Your task to perform on an android device: Open accessibility settings Image 0: 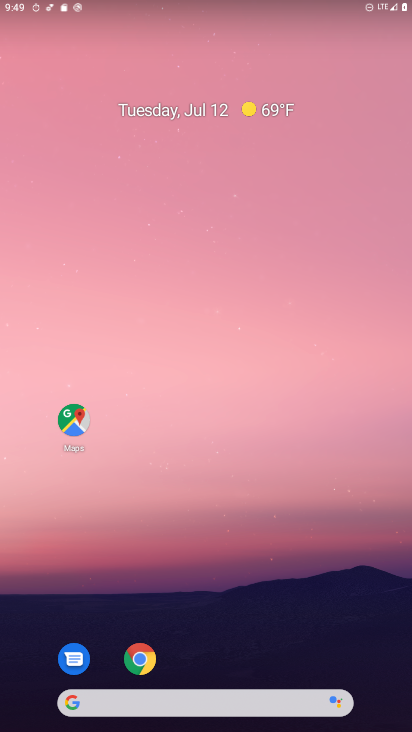
Step 0: drag from (192, 708) to (206, 272)
Your task to perform on an android device: Open accessibility settings Image 1: 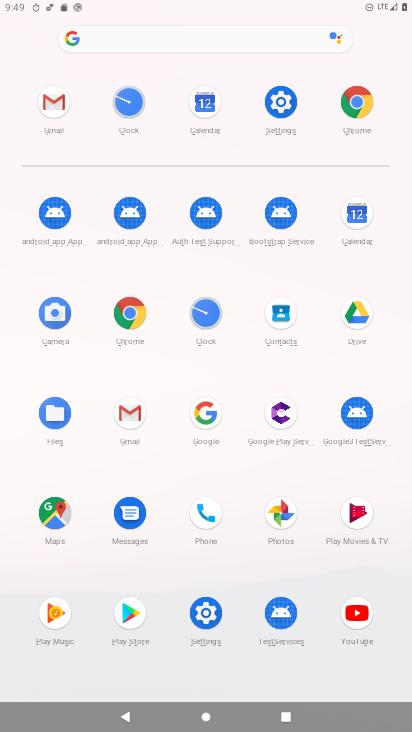
Step 1: click (286, 100)
Your task to perform on an android device: Open accessibility settings Image 2: 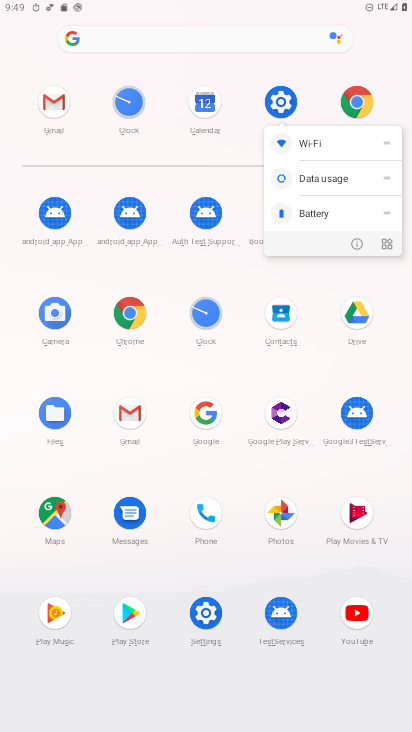
Step 2: click (276, 103)
Your task to perform on an android device: Open accessibility settings Image 3: 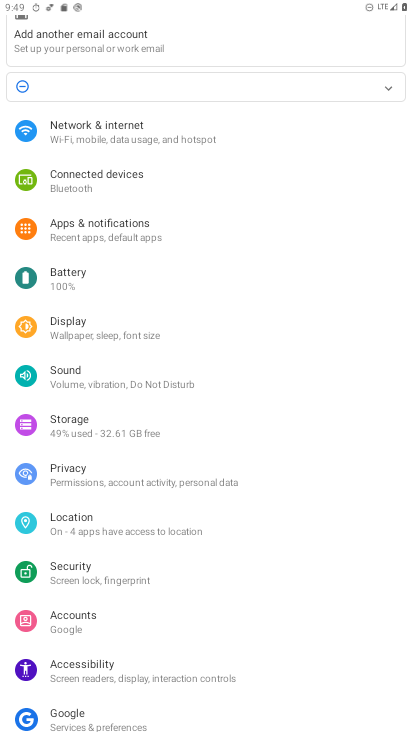
Step 3: click (72, 668)
Your task to perform on an android device: Open accessibility settings Image 4: 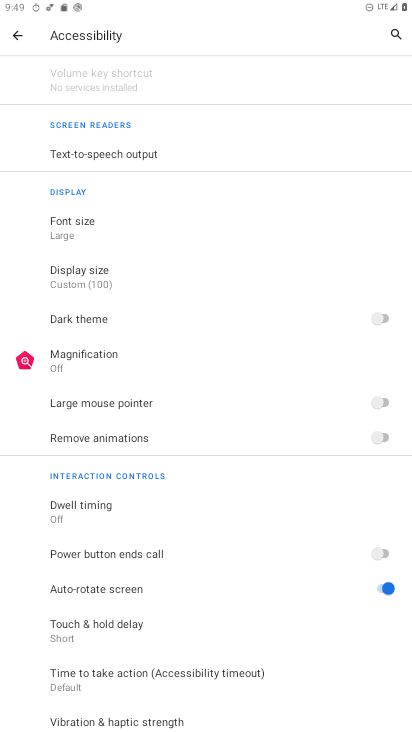
Step 4: task complete